Your task to perform on an android device: Open accessibility settings Image 0: 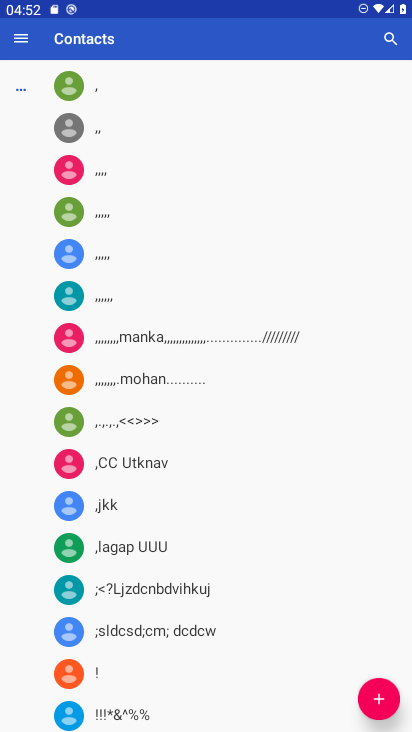
Step 0: press home button
Your task to perform on an android device: Open accessibility settings Image 1: 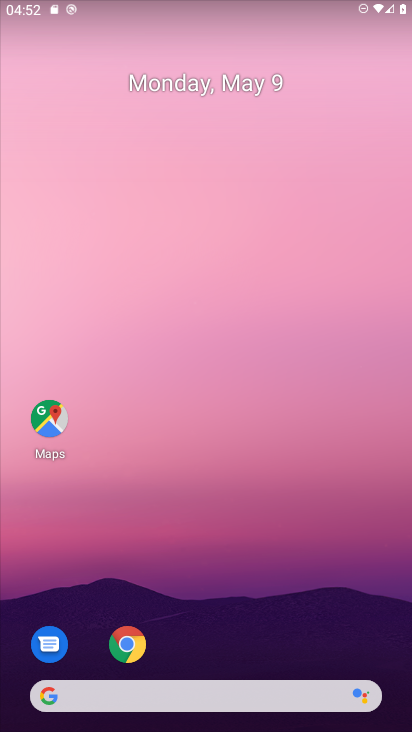
Step 1: drag from (178, 575) to (182, 0)
Your task to perform on an android device: Open accessibility settings Image 2: 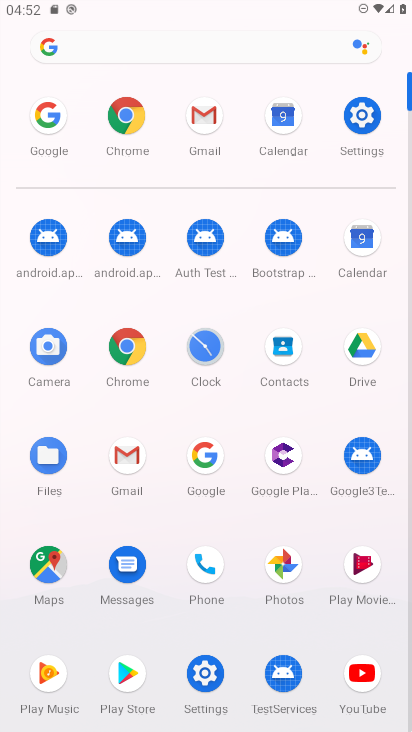
Step 2: click (364, 113)
Your task to perform on an android device: Open accessibility settings Image 3: 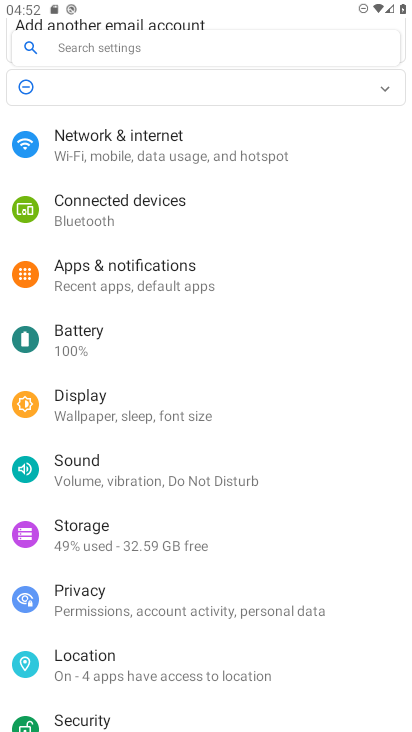
Step 3: drag from (166, 611) to (215, 199)
Your task to perform on an android device: Open accessibility settings Image 4: 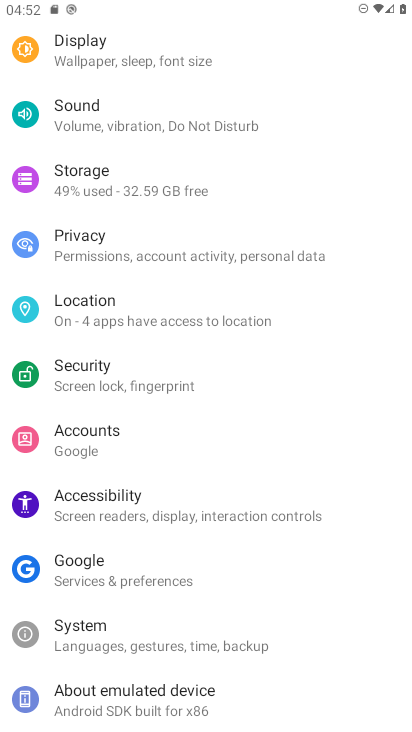
Step 4: click (111, 491)
Your task to perform on an android device: Open accessibility settings Image 5: 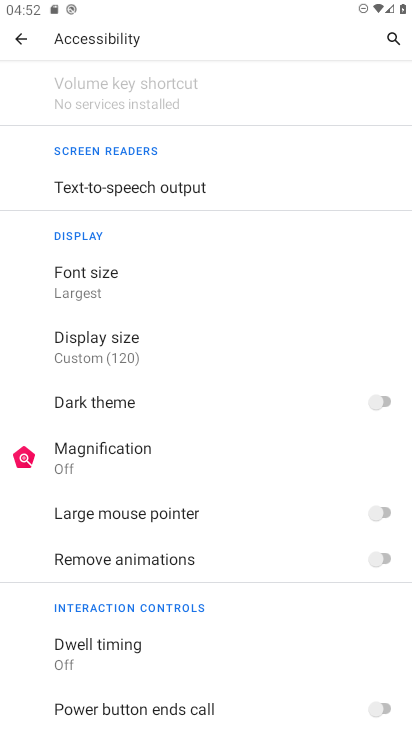
Step 5: task complete